Your task to perform on an android device: turn smart compose on in the gmail app Image 0: 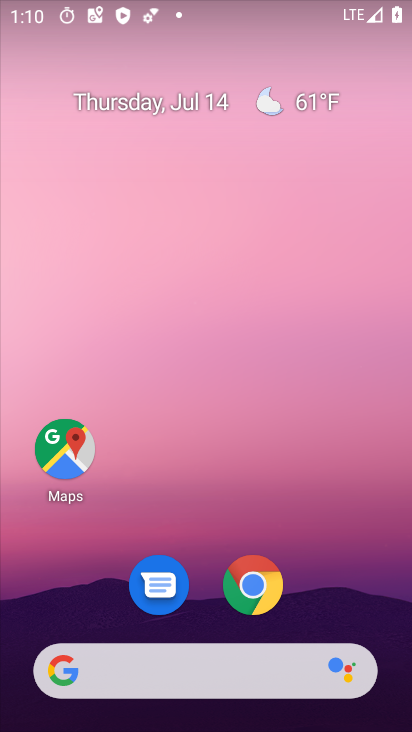
Step 0: drag from (331, 570) to (293, 26)
Your task to perform on an android device: turn smart compose on in the gmail app Image 1: 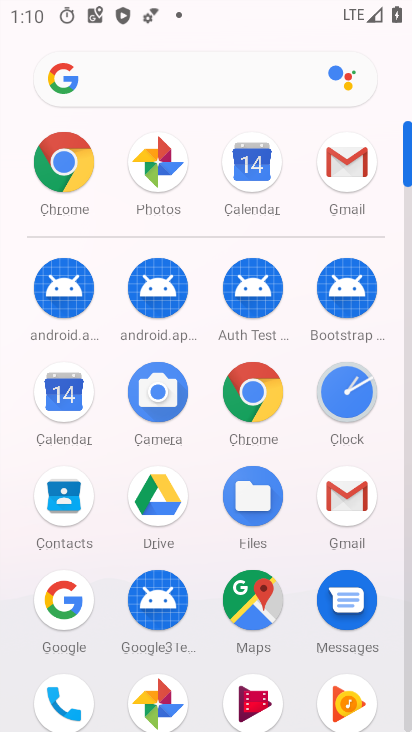
Step 1: click (347, 172)
Your task to perform on an android device: turn smart compose on in the gmail app Image 2: 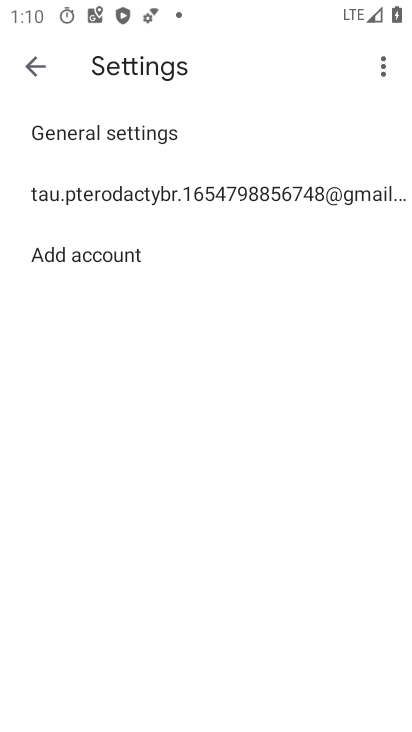
Step 2: click (142, 189)
Your task to perform on an android device: turn smart compose on in the gmail app Image 3: 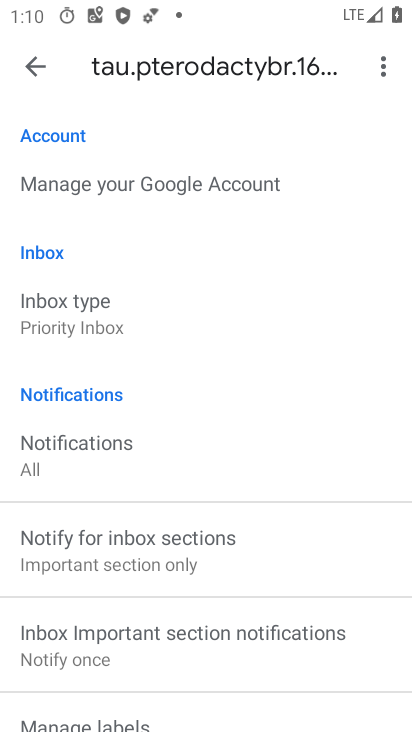
Step 3: task complete